Your task to perform on an android device: Do I have any events this weekend? Image 0: 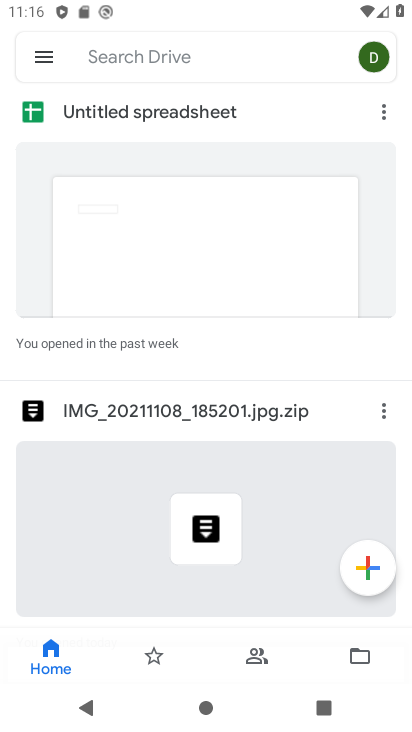
Step 0: press home button
Your task to perform on an android device: Do I have any events this weekend? Image 1: 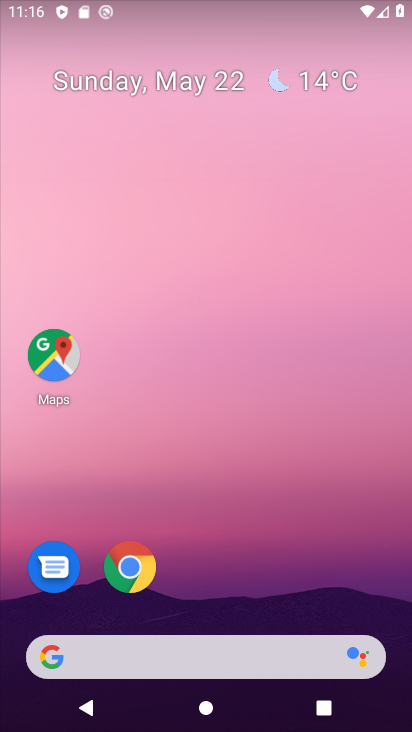
Step 1: drag from (170, 567) to (239, 76)
Your task to perform on an android device: Do I have any events this weekend? Image 2: 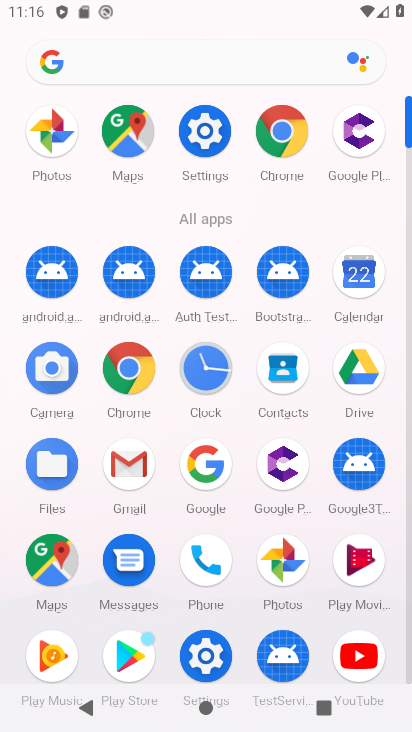
Step 2: click (353, 273)
Your task to perform on an android device: Do I have any events this weekend? Image 3: 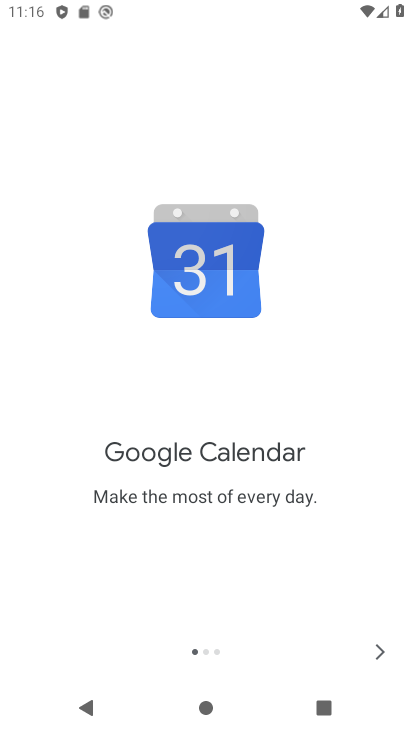
Step 3: click (373, 647)
Your task to perform on an android device: Do I have any events this weekend? Image 4: 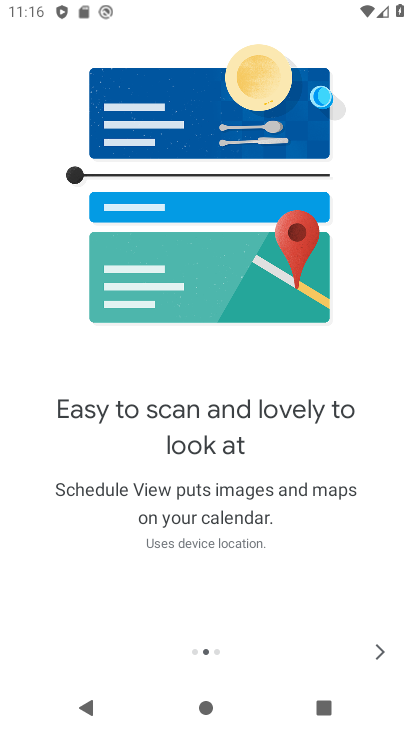
Step 4: click (363, 653)
Your task to perform on an android device: Do I have any events this weekend? Image 5: 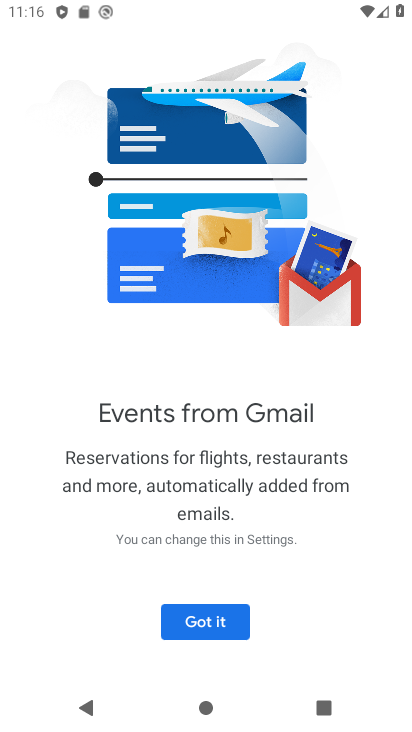
Step 5: click (197, 637)
Your task to perform on an android device: Do I have any events this weekend? Image 6: 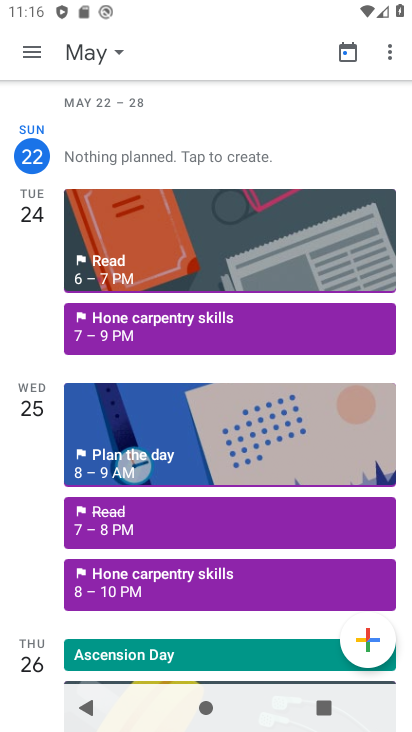
Step 6: click (114, 55)
Your task to perform on an android device: Do I have any events this weekend? Image 7: 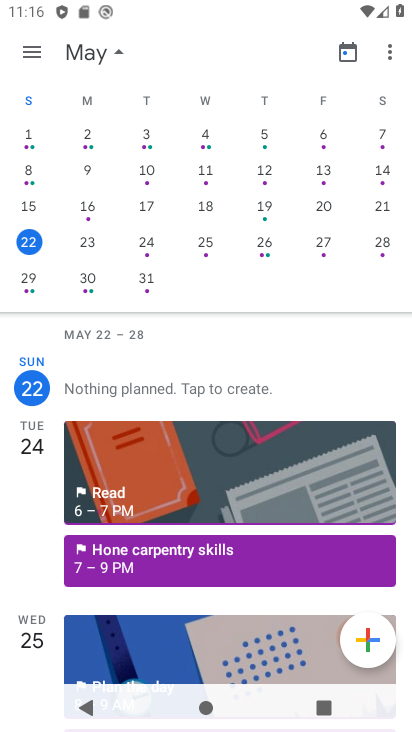
Step 7: click (382, 241)
Your task to perform on an android device: Do I have any events this weekend? Image 8: 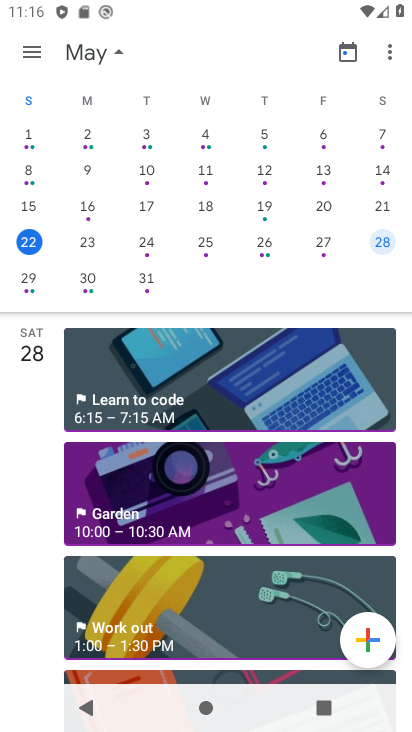
Step 8: click (23, 279)
Your task to perform on an android device: Do I have any events this weekend? Image 9: 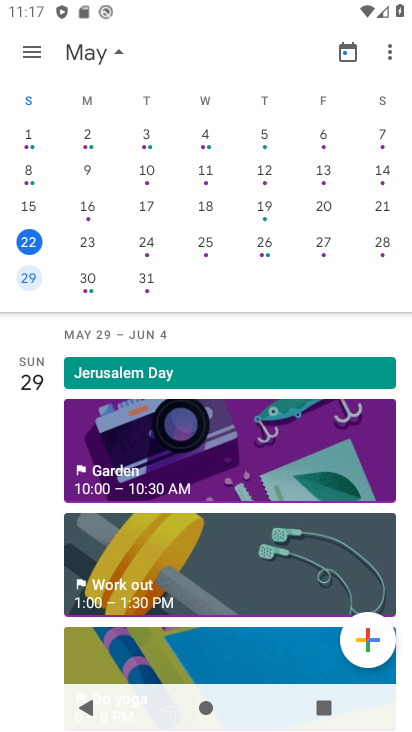
Step 9: task complete